Your task to perform on an android device: install app "Pinterest" Image 0: 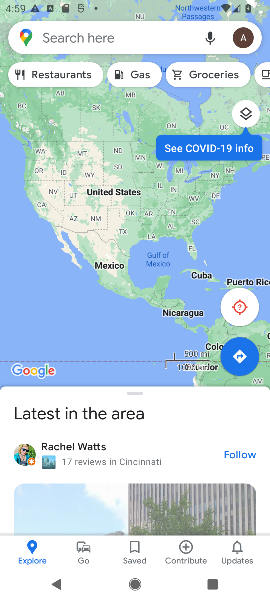
Step 0: press home button
Your task to perform on an android device: install app "Pinterest" Image 1: 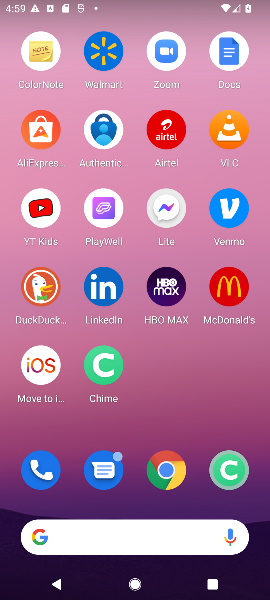
Step 1: drag from (177, 27) to (229, 492)
Your task to perform on an android device: install app "Pinterest" Image 2: 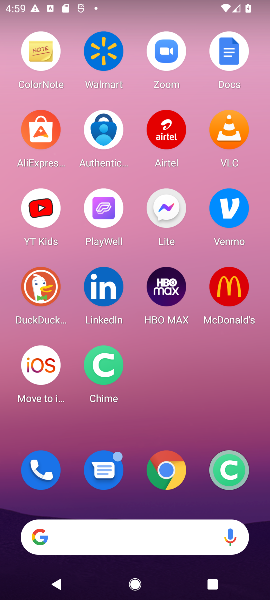
Step 2: drag from (173, 419) to (129, 7)
Your task to perform on an android device: install app "Pinterest" Image 3: 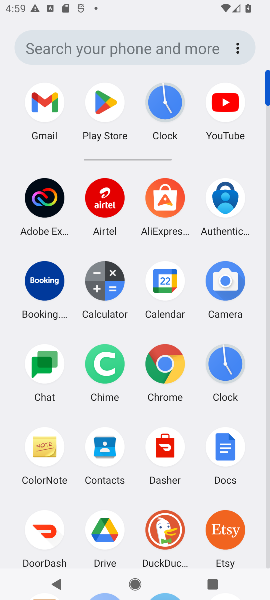
Step 3: click (91, 90)
Your task to perform on an android device: install app "Pinterest" Image 4: 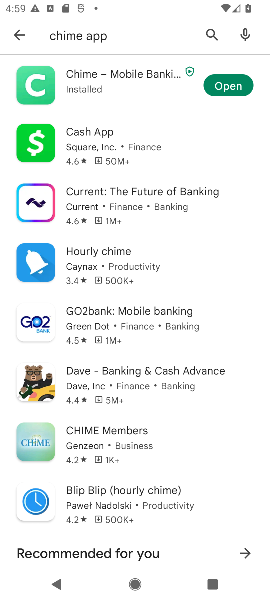
Step 4: click (24, 31)
Your task to perform on an android device: install app "Pinterest" Image 5: 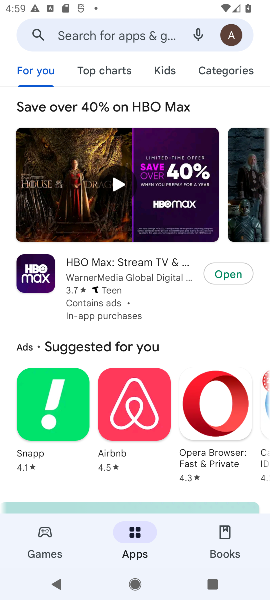
Step 5: click (71, 31)
Your task to perform on an android device: install app "Pinterest" Image 6: 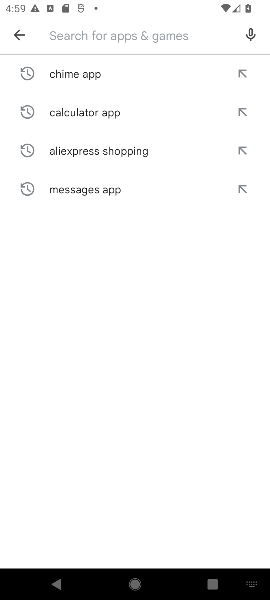
Step 6: click (122, 33)
Your task to perform on an android device: install app "Pinterest" Image 7: 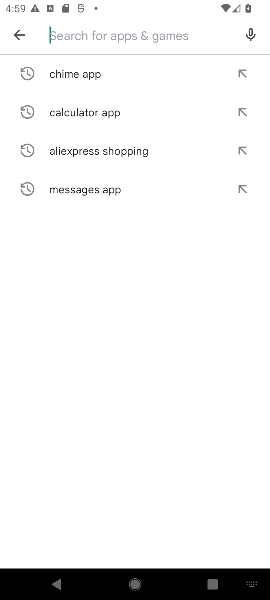
Step 7: type "Pinterest "
Your task to perform on an android device: install app "Pinterest" Image 8: 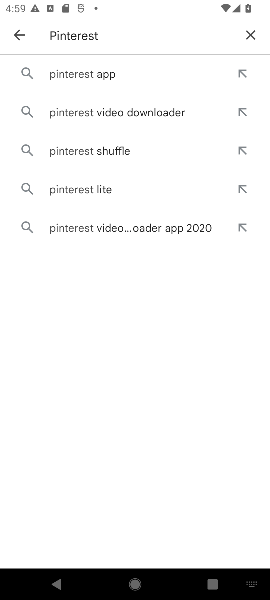
Step 8: click (93, 79)
Your task to perform on an android device: install app "Pinterest" Image 9: 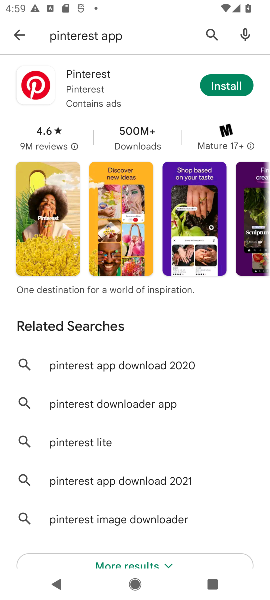
Step 9: click (231, 72)
Your task to perform on an android device: install app "Pinterest" Image 10: 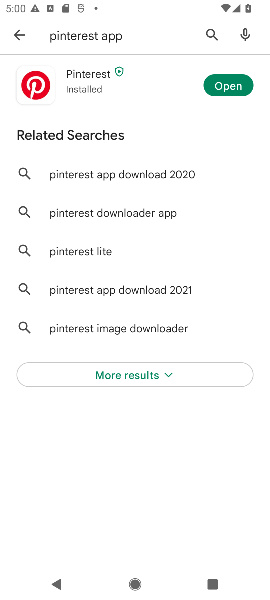
Step 10: click (224, 83)
Your task to perform on an android device: install app "Pinterest" Image 11: 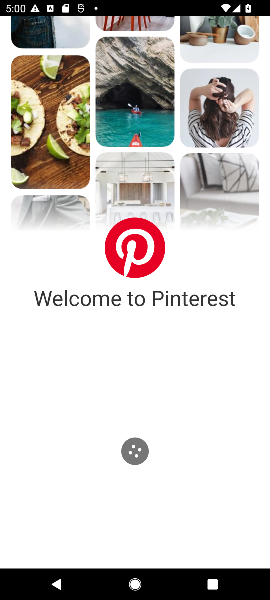
Step 11: task complete